Your task to perform on an android device: Open Youtube and go to the subscriptions tab Image 0: 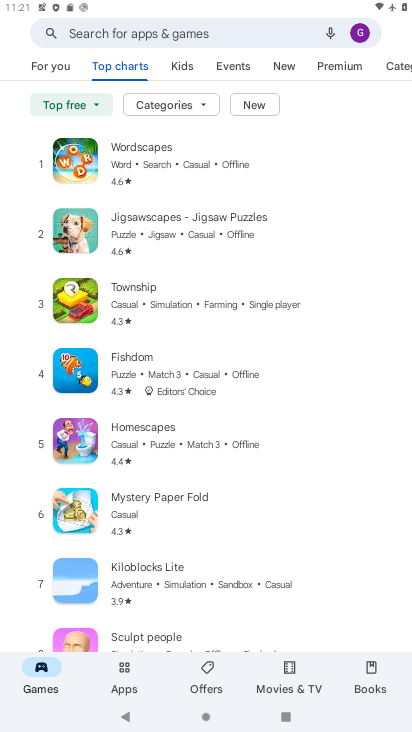
Step 0: task complete